Your task to perform on an android device: clear all cookies in the chrome app Image 0: 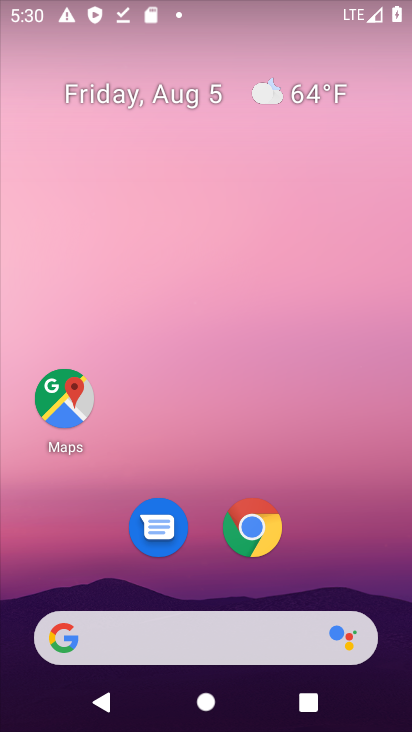
Step 0: drag from (218, 566) to (307, 232)
Your task to perform on an android device: clear all cookies in the chrome app Image 1: 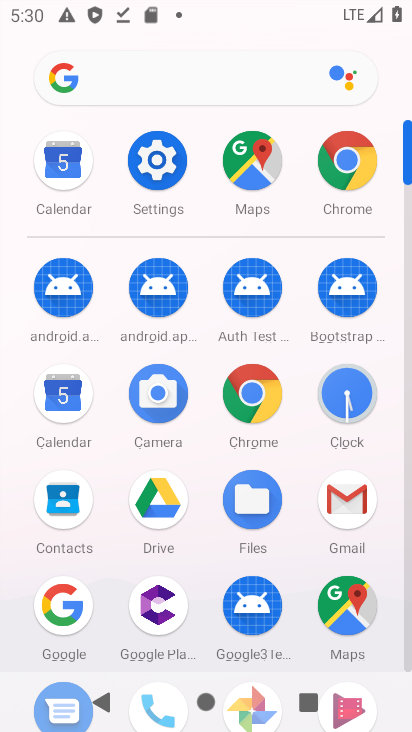
Step 1: click (253, 375)
Your task to perform on an android device: clear all cookies in the chrome app Image 2: 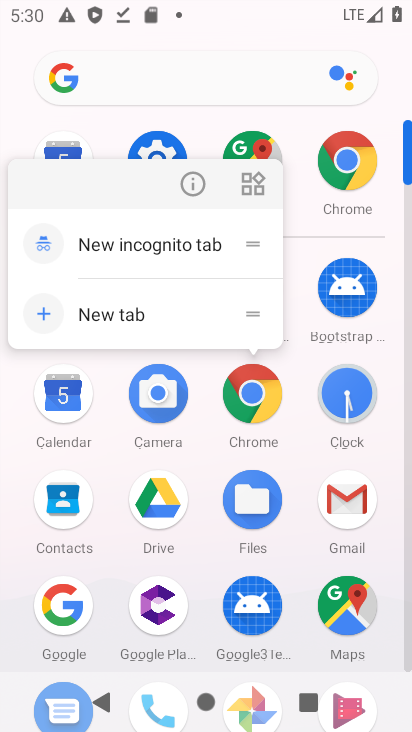
Step 2: click (173, 179)
Your task to perform on an android device: clear all cookies in the chrome app Image 3: 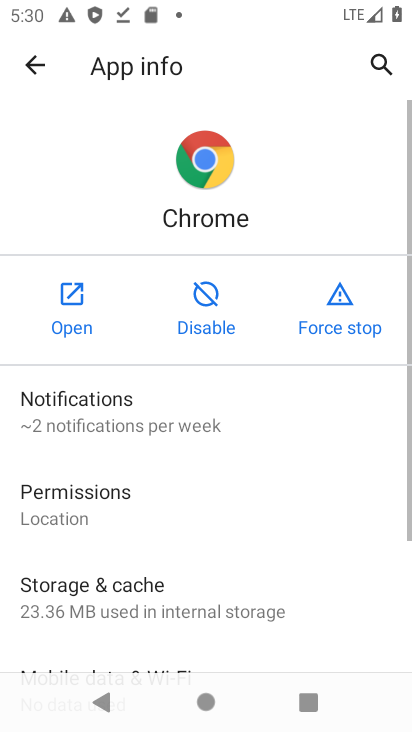
Step 3: click (70, 306)
Your task to perform on an android device: clear all cookies in the chrome app Image 4: 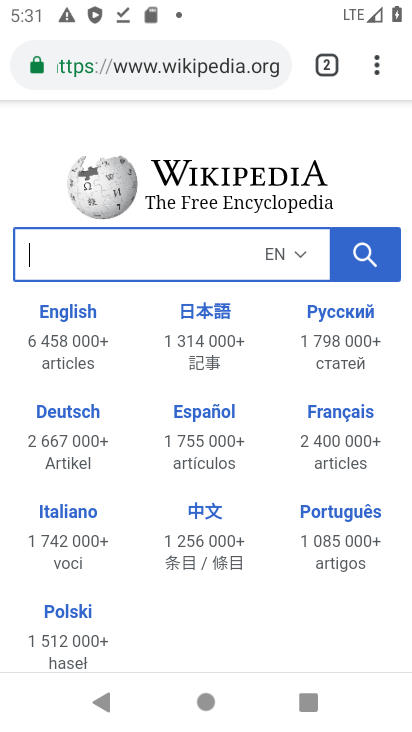
Step 4: drag from (374, 59) to (186, 576)
Your task to perform on an android device: clear all cookies in the chrome app Image 5: 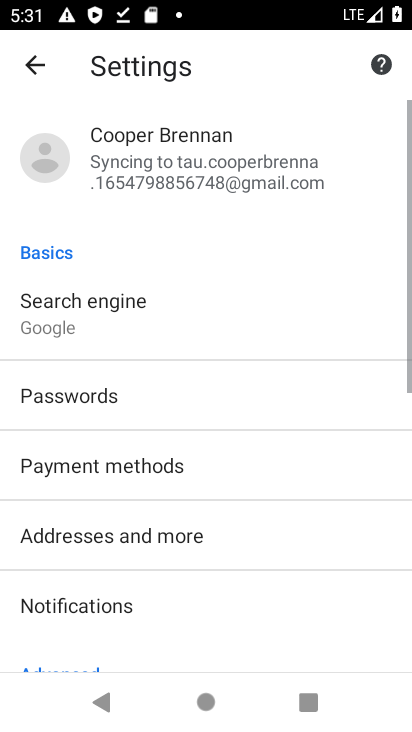
Step 5: click (51, 65)
Your task to perform on an android device: clear all cookies in the chrome app Image 6: 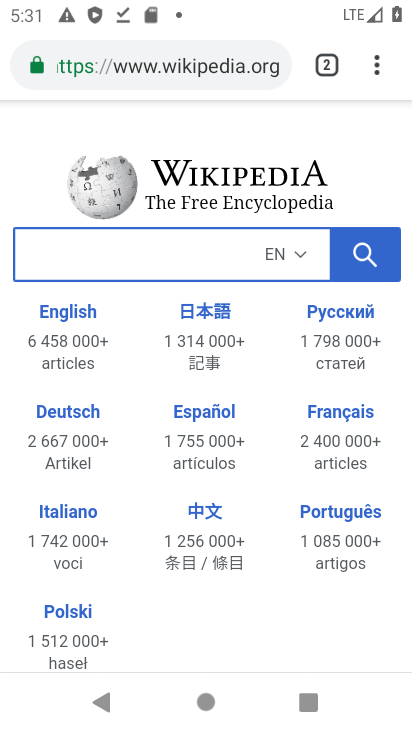
Step 6: drag from (378, 66) to (185, 163)
Your task to perform on an android device: clear all cookies in the chrome app Image 7: 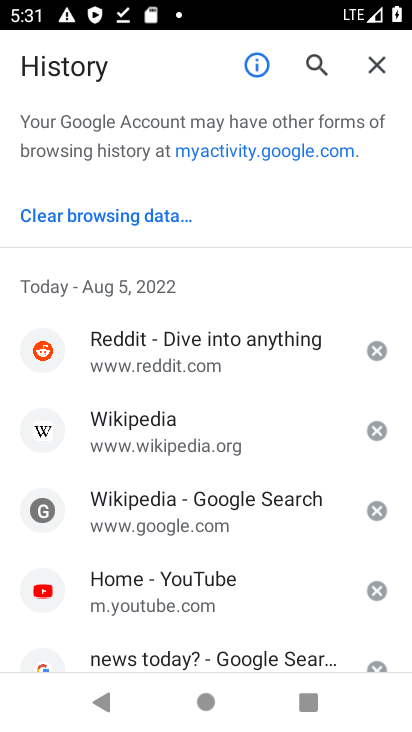
Step 7: click (74, 213)
Your task to perform on an android device: clear all cookies in the chrome app Image 8: 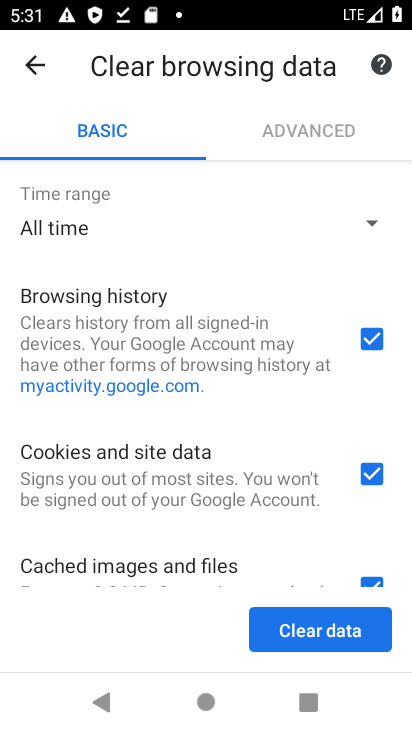
Step 8: click (357, 336)
Your task to perform on an android device: clear all cookies in the chrome app Image 9: 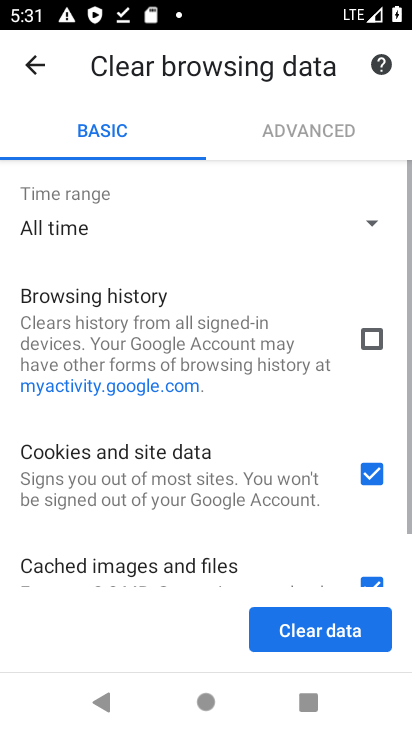
Step 9: drag from (253, 514) to (346, 211)
Your task to perform on an android device: clear all cookies in the chrome app Image 10: 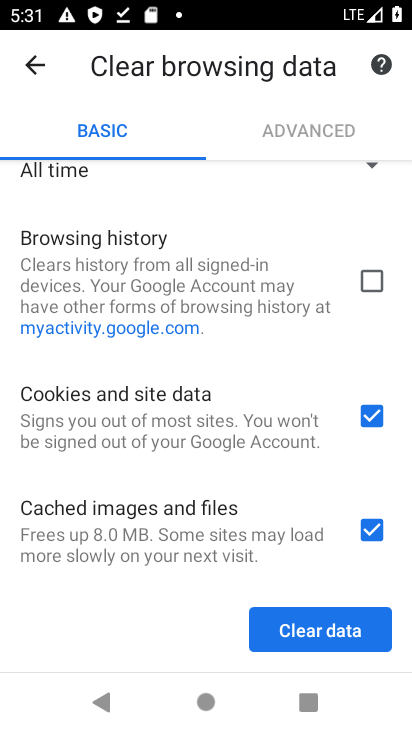
Step 10: click (371, 528)
Your task to perform on an android device: clear all cookies in the chrome app Image 11: 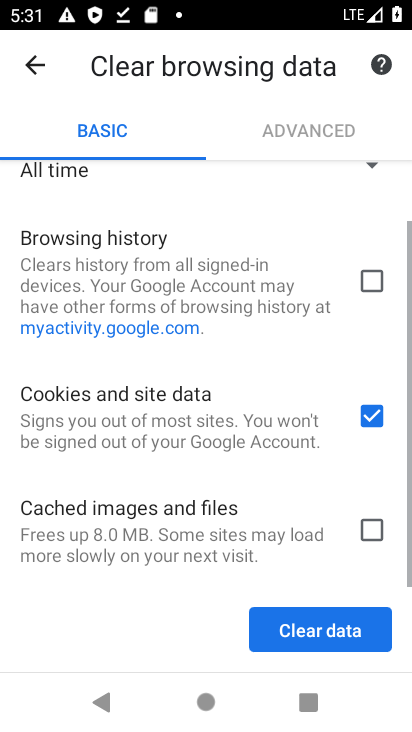
Step 11: click (288, 639)
Your task to perform on an android device: clear all cookies in the chrome app Image 12: 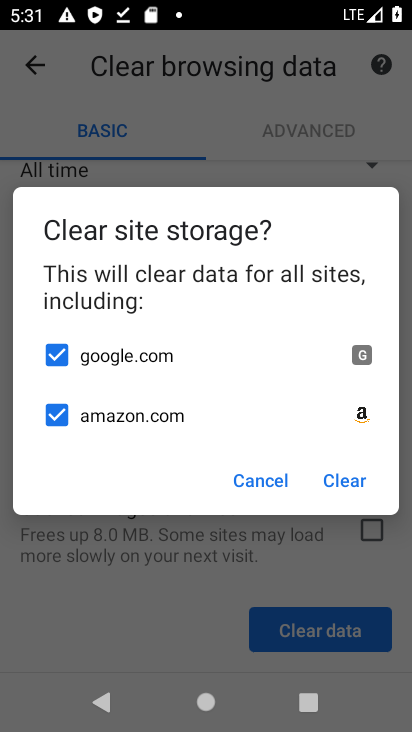
Step 12: click (347, 470)
Your task to perform on an android device: clear all cookies in the chrome app Image 13: 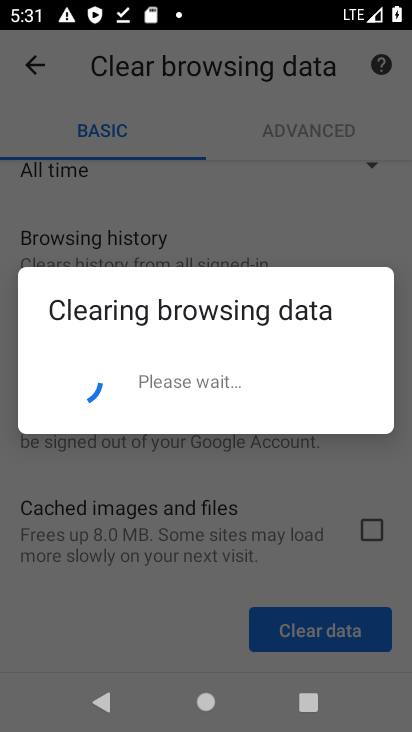
Step 13: task complete